Your task to perform on an android device: Open Android settings Image 0: 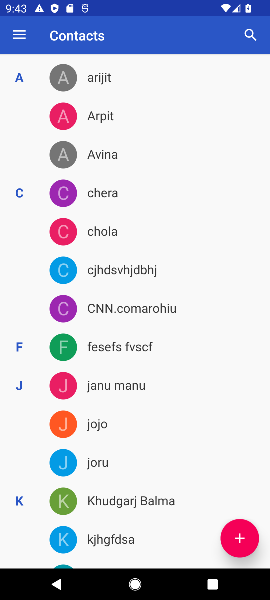
Step 0: press home button
Your task to perform on an android device: Open Android settings Image 1: 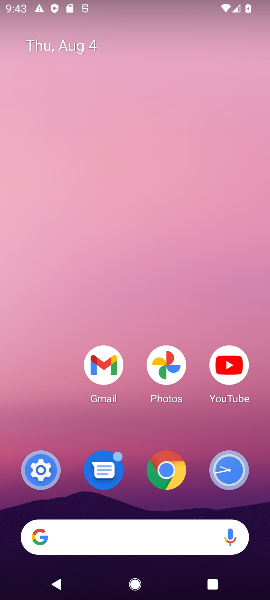
Step 1: click (39, 469)
Your task to perform on an android device: Open Android settings Image 2: 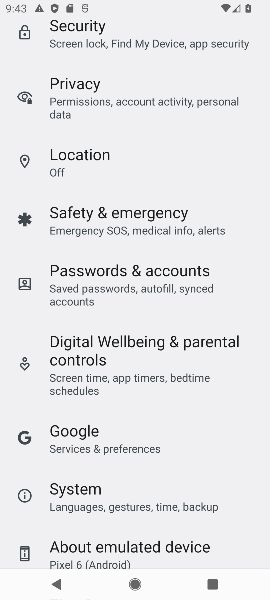
Step 2: click (100, 501)
Your task to perform on an android device: Open Android settings Image 3: 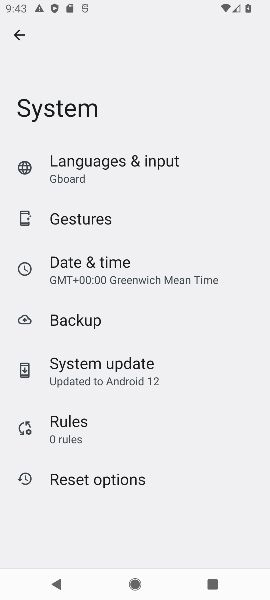
Step 3: task complete